Your task to perform on an android device: Open Youtube and go to the subscriptions tab Image 0: 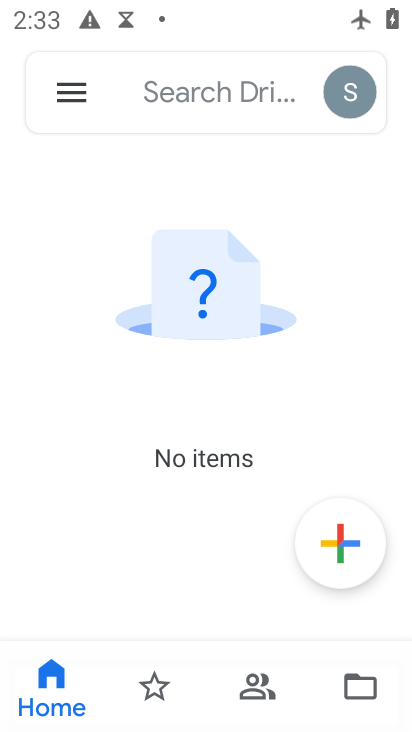
Step 0: press home button
Your task to perform on an android device: Open Youtube and go to the subscriptions tab Image 1: 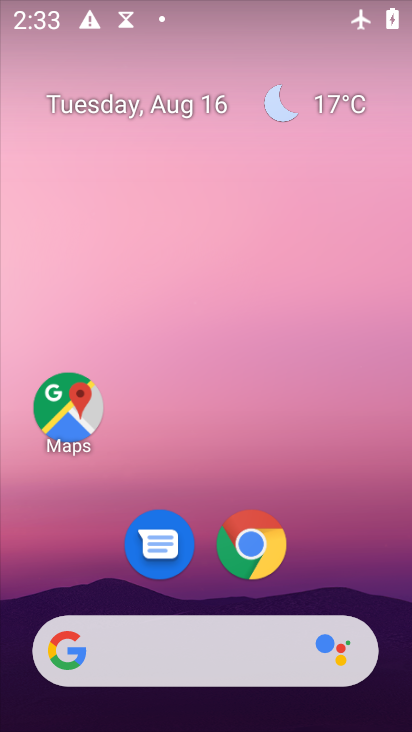
Step 1: drag from (172, 660) to (250, 53)
Your task to perform on an android device: Open Youtube and go to the subscriptions tab Image 2: 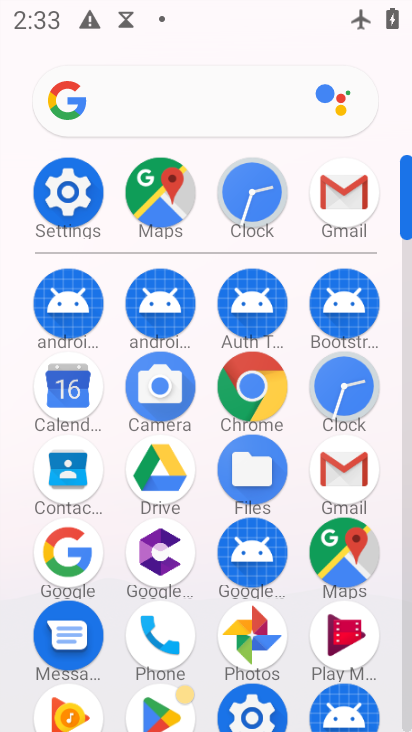
Step 2: drag from (207, 519) to (194, 281)
Your task to perform on an android device: Open Youtube and go to the subscriptions tab Image 3: 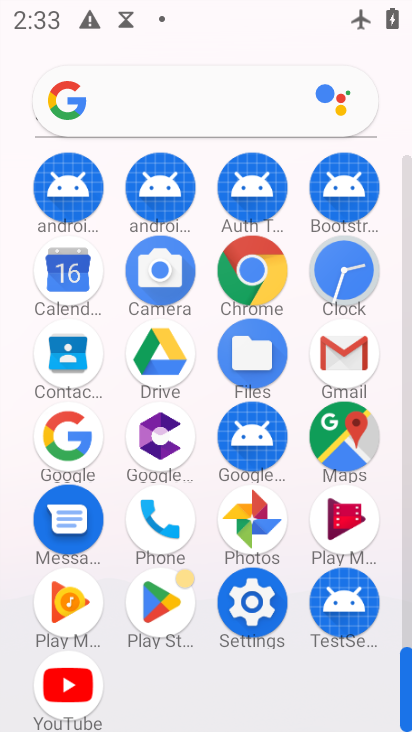
Step 3: click (67, 686)
Your task to perform on an android device: Open Youtube and go to the subscriptions tab Image 4: 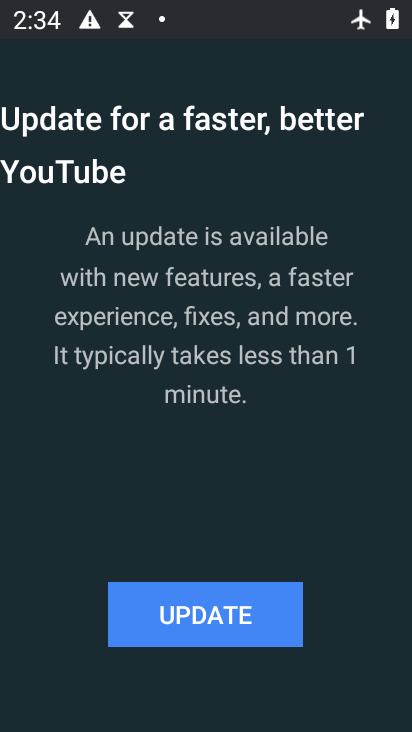
Step 4: click (222, 607)
Your task to perform on an android device: Open Youtube and go to the subscriptions tab Image 5: 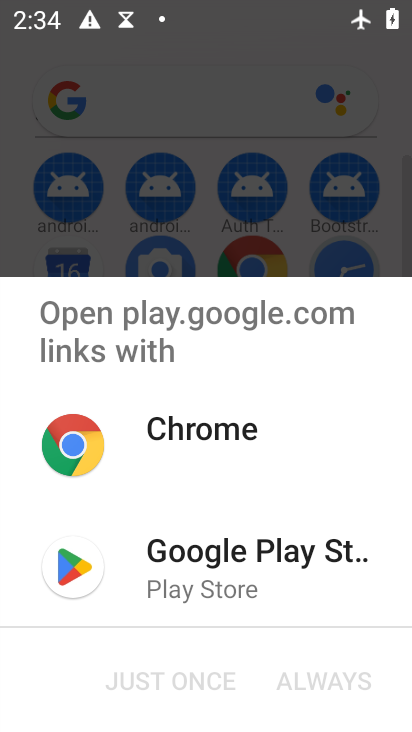
Step 5: click (224, 570)
Your task to perform on an android device: Open Youtube and go to the subscriptions tab Image 6: 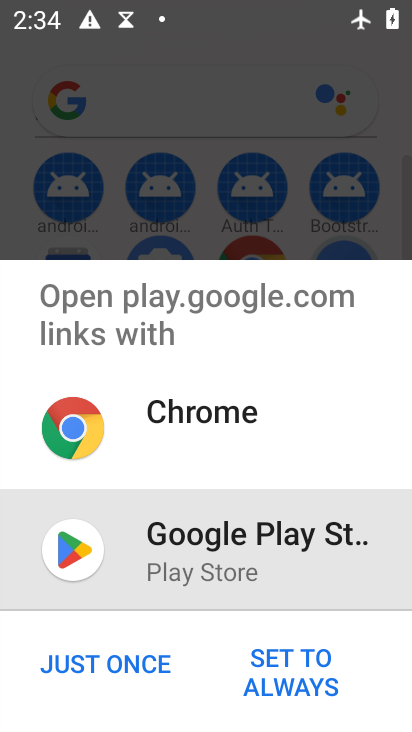
Step 6: click (134, 666)
Your task to perform on an android device: Open Youtube and go to the subscriptions tab Image 7: 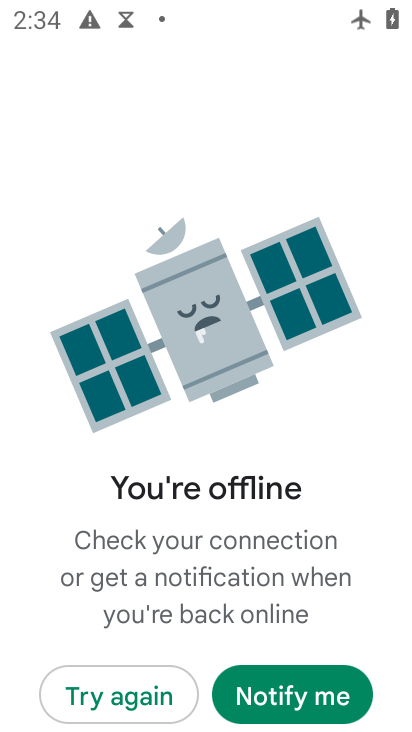
Step 7: click (146, 696)
Your task to perform on an android device: Open Youtube and go to the subscriptions tab Image 8: 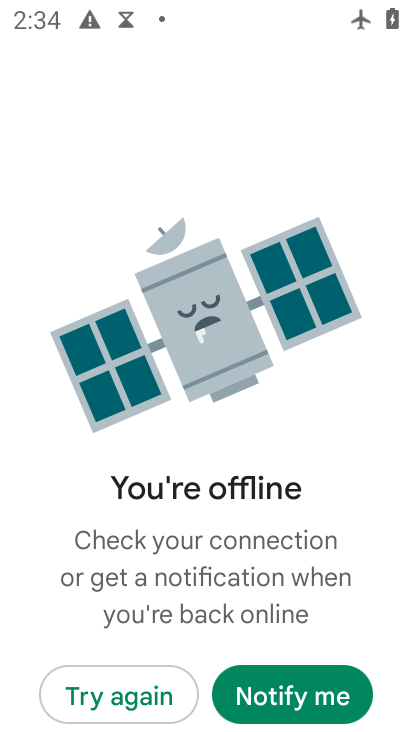
Step 8: task complete